Your task to perform on an android device: toggle priority inbox in the gmail app Image 0: 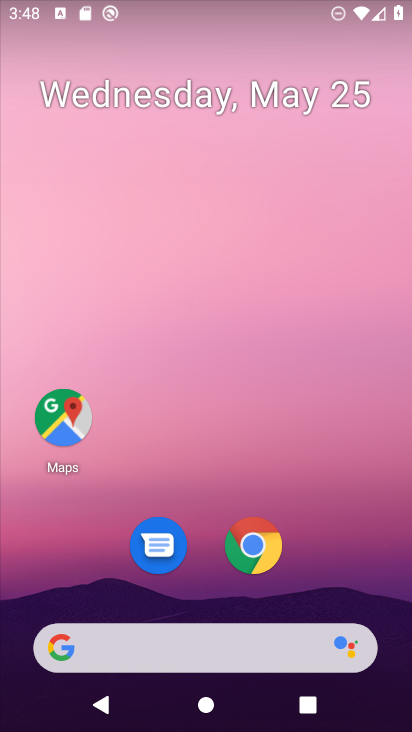
Step 0: drag from (377, 574) to (320, 203)
Your task to perform on an android device: toggle priority inbox in the gmail app Image 1: 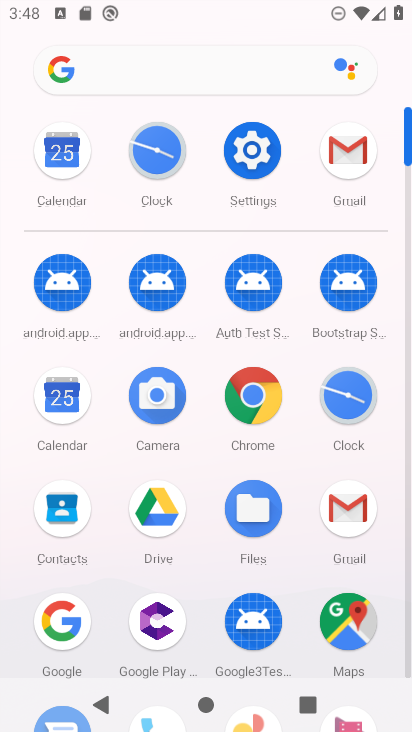
Step 1: click (358, 154)
Your task to perform on an android device: toggle priority inbox in the gmail app Image 2: 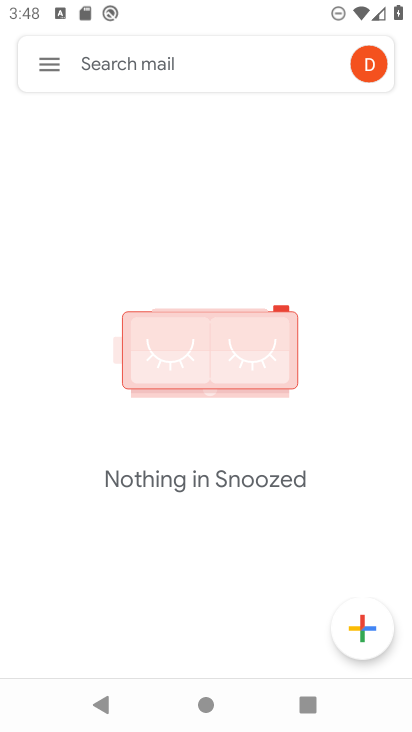
Step 2: task complete